Your task to perform on an android device: Clear the cart on newegg. Add "logitech g pro" to the cart on newegg, then select checkout. Image 0: 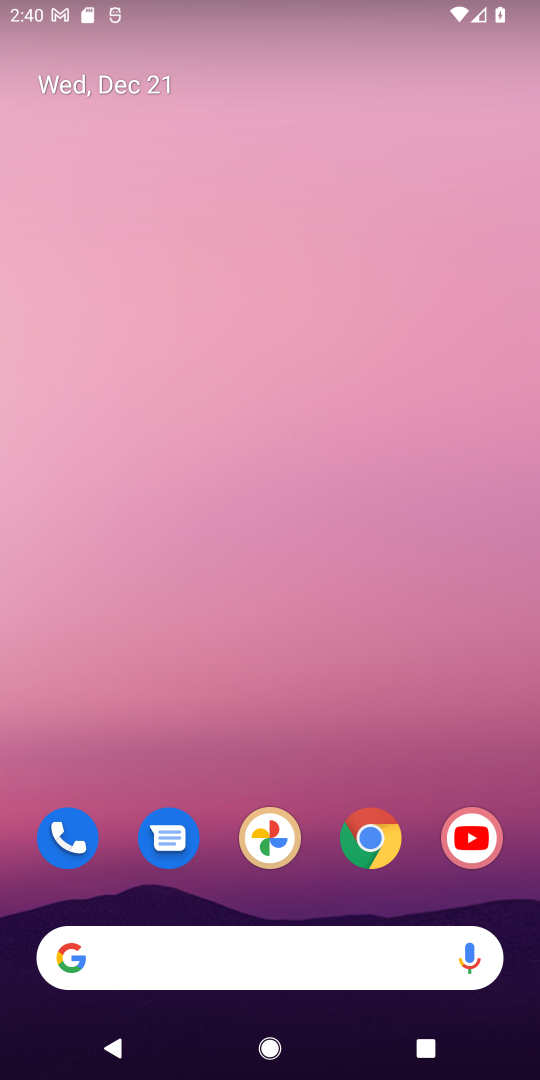
Step 0: click (361, 835)
Your task to perform on an android device: Clear the cart on newegg. Add "logitech g pro" to the cart on newegg, then select checkout. Image 1: 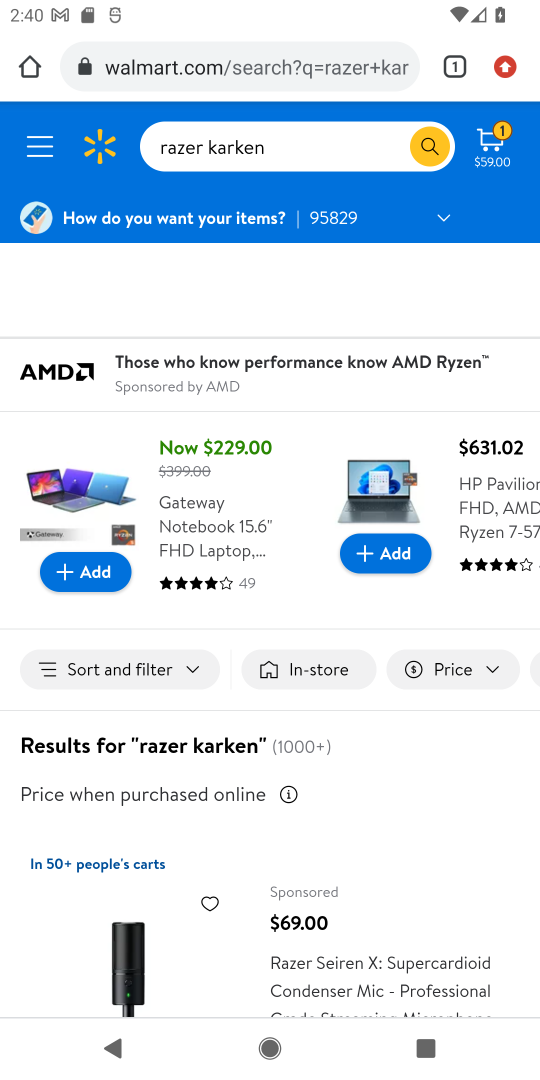
Step 1: click (307, 83)
Your task to perform on an android device: Clear the cart on newegg. Add "logitech g pro" to the cart on newegg, then select checkout. Image 2: 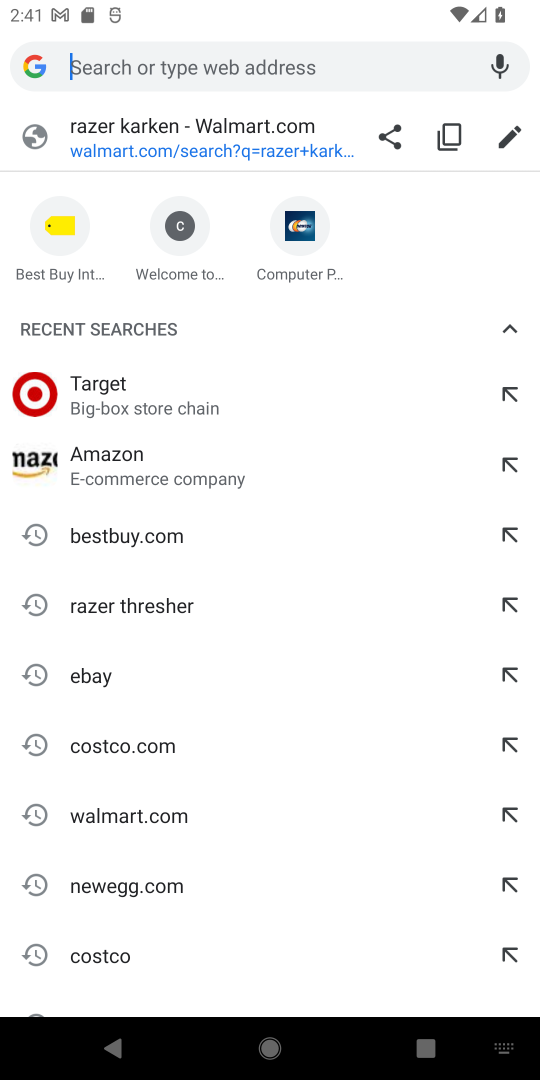
Step 2: type "newegg"
Your task to perform on an android device: Clear the cart on newegg. Add "logitech g pro" to the cart on newegg, then select checkout. Image 3: 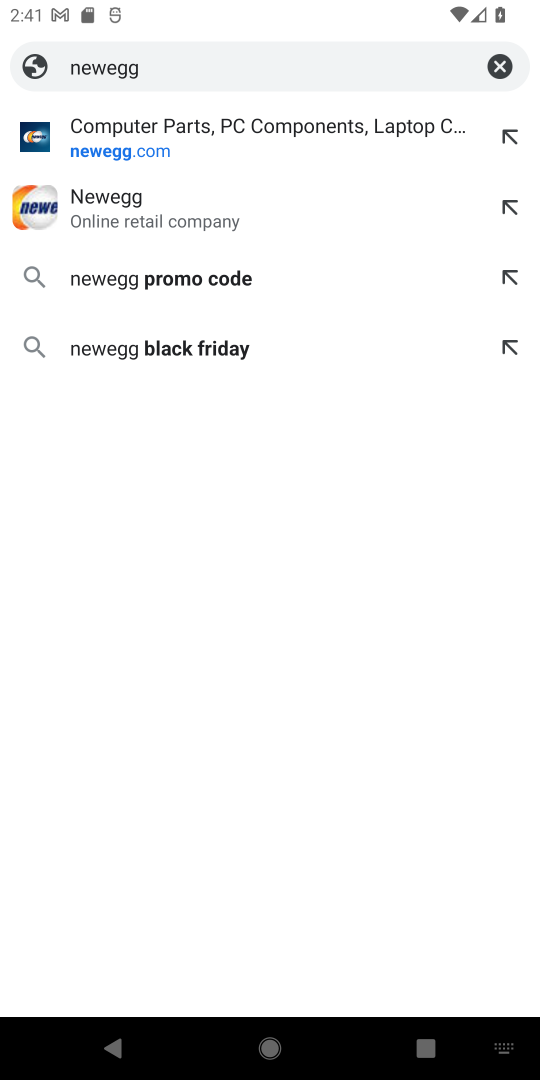
Step 3: click (269, 154)
Your task to perform on an android device: Clear the cart on newegg. Add "logitech g pro" to the cart on newegg, then select checkout. Image 4: 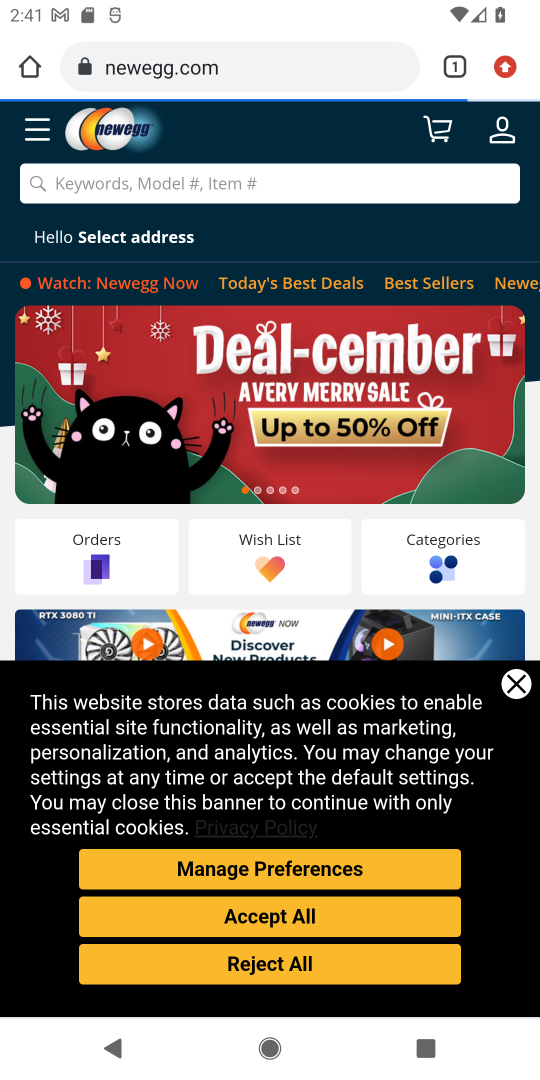
Step 4: click (262, 180)
Your task to perform on an android device: Clear the cart on newegg. Add "logitech g pro" to the cart on newegg, then select checkout. Image 5: 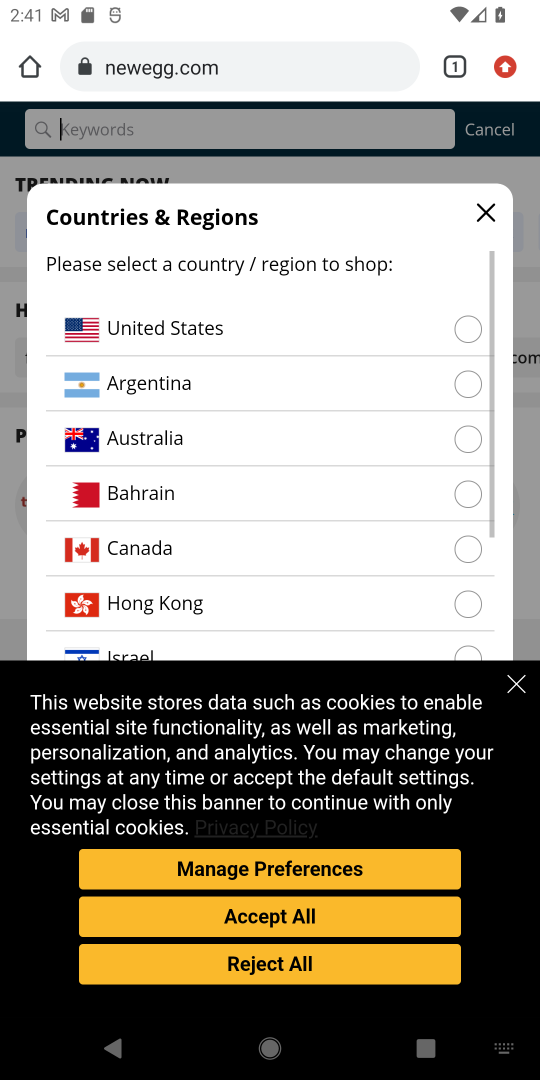
Step 5: click (147, 317)
Your task to perform on an android device: Clear the cart on newegg. Add "logitech g pro" to the cart on newegg, then select checkout. Image 6: 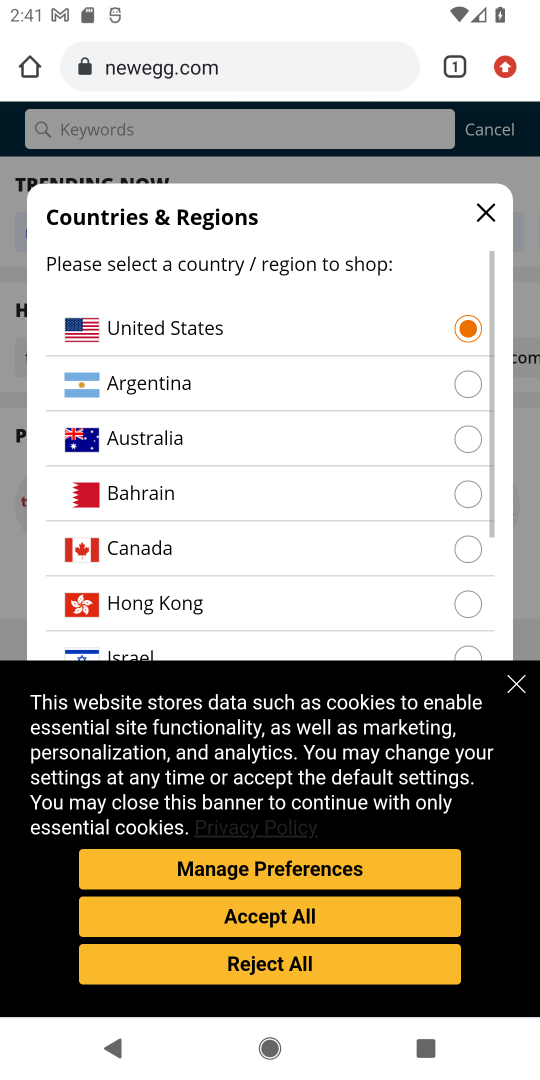
Step 6: click (302, 911)
Your task to perform on an android device: Clear the cart on newegg. Add "logitech g pro" to the cart on newegg, then select checkout. Image 7: 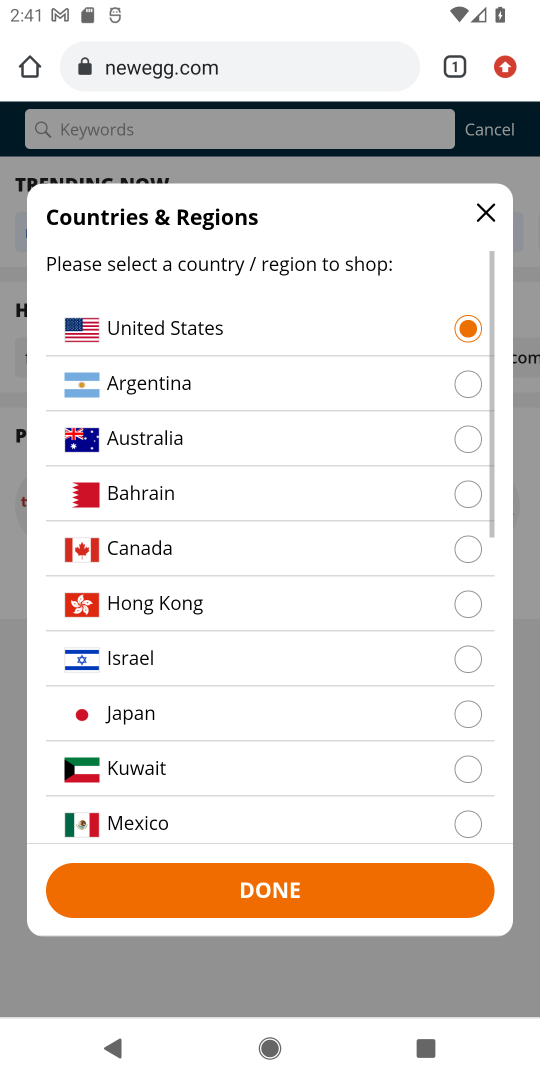
Step 7: click (313, 899)
Your task to perform on an android device: Clear the cart on newegg. Add "logitech g pro" to the cart on newegg, then select checkout. Image 8: 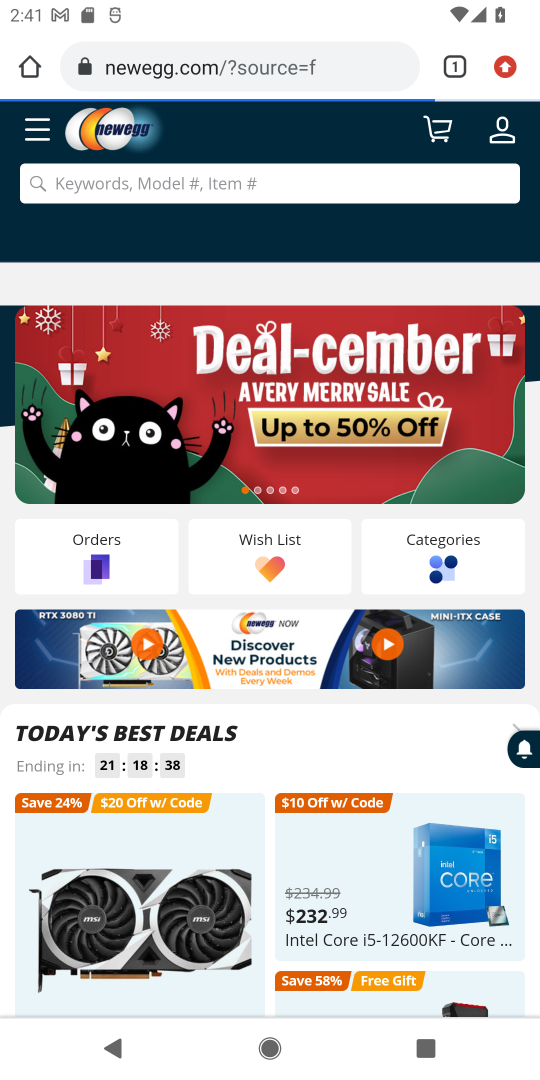
Step 8: click (279, 123)
Your task to perform on an android device: Clear the cart on newegg. Add "logitech g pro" to the cart on newegg, then select checkout. Image 9: 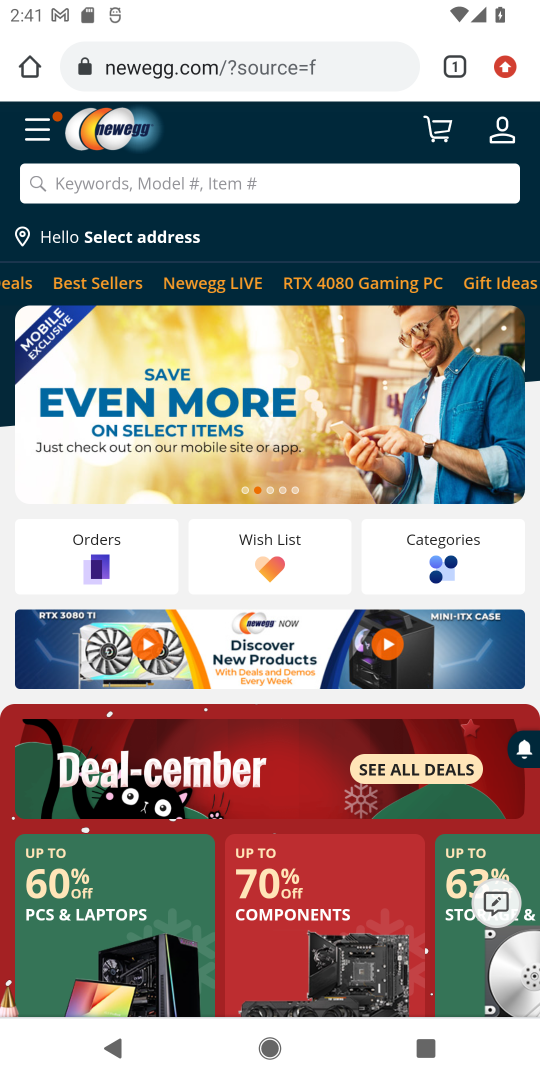
Step 9: type "logitech g pro"
Your task to perform on an android device: Clear the cart on newegg. Add "logitech g pro" to the cart on newegg, then select checkout. Image 10: 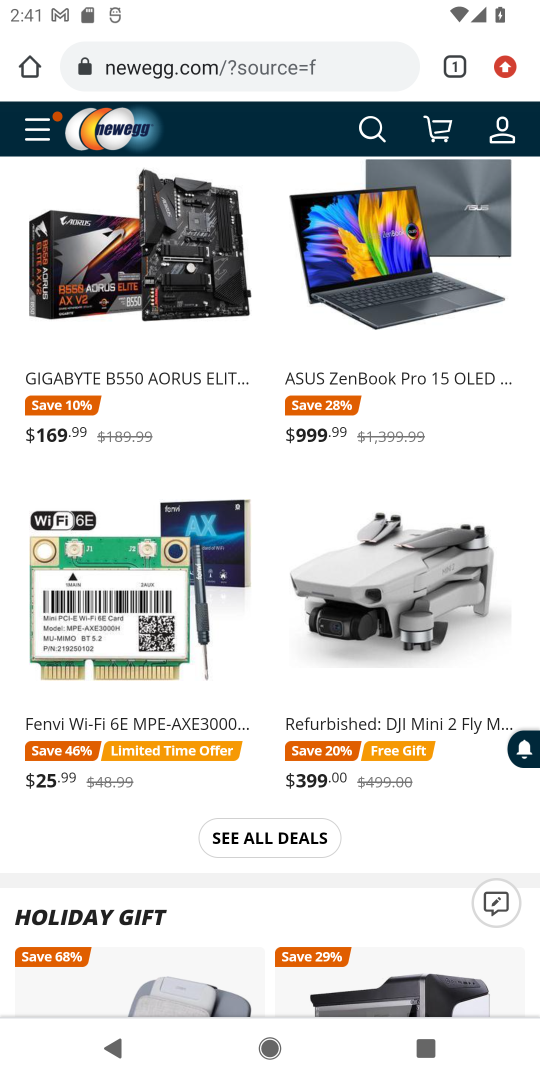
Step 10: click (360, 147)
Your task to perform on an android device: Clear the cart on newegg. Add "logitech g pro" to the cart on newegg, then select checkout. Image 11: 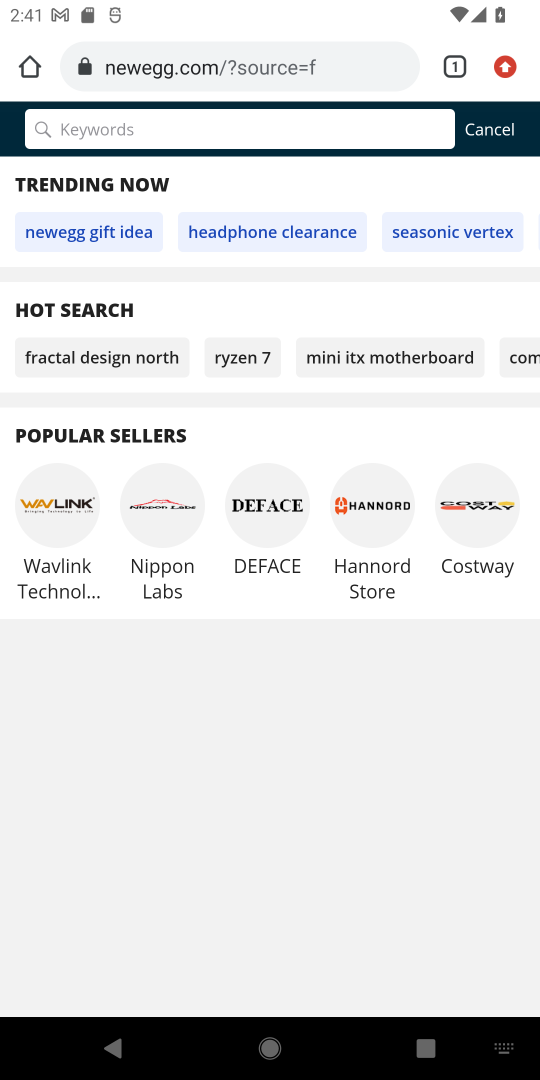
Step 11: type "logitech g pro"
Your task to perform on an android device: Clear the cart on newegg. Add "logitech g pro" to the cart on newegg, then select checkout. Image 12: 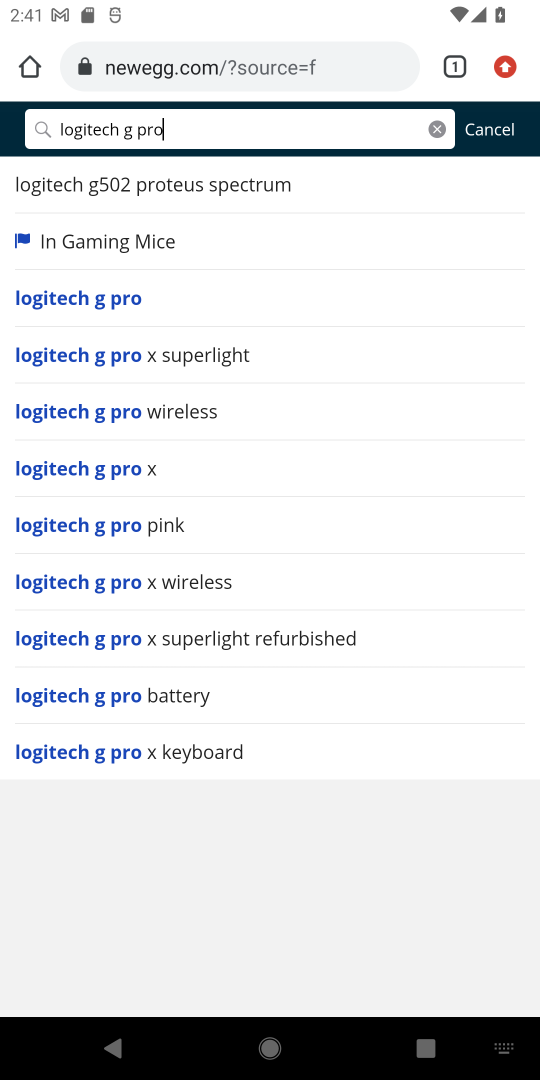
Step 12: click (129, 295)
Your task to perform on an android device: Clear the cart on newegg. Add "logitech g pro" to the cart on newegg, then select checkout. Image 13: 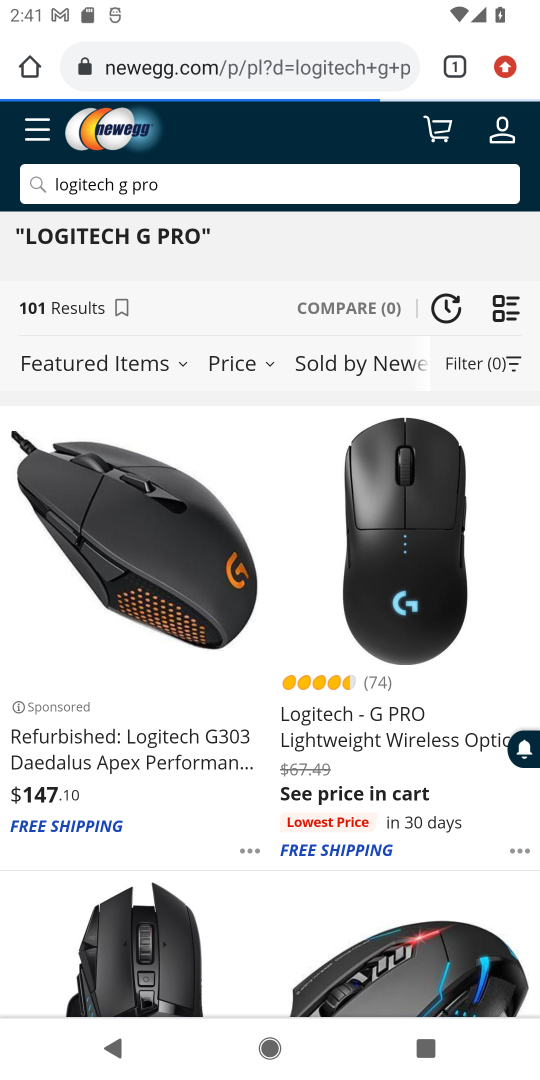
Step 13: click (133, 547)
Your task to perform on an android device: Clear the cart on newegg. Add "logitech g pro" to the cart on newegg, then select checkout. Image 14: 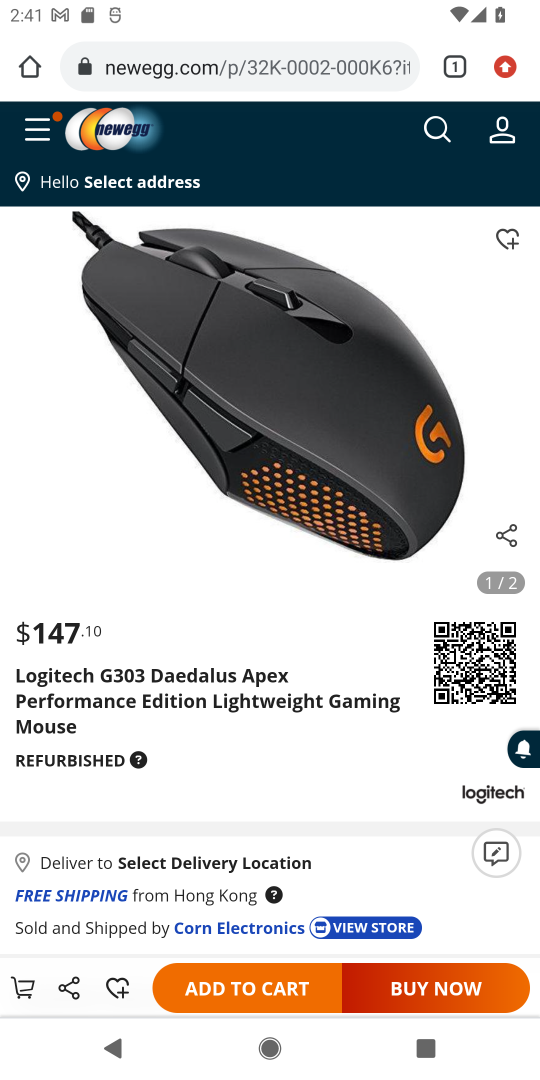
Step 14: click (200, 980)
Your task to perform on an android device: Clear the cart on newegg. Add "logitech g pro" to the cart on newegg, then select checkout. Image 15: 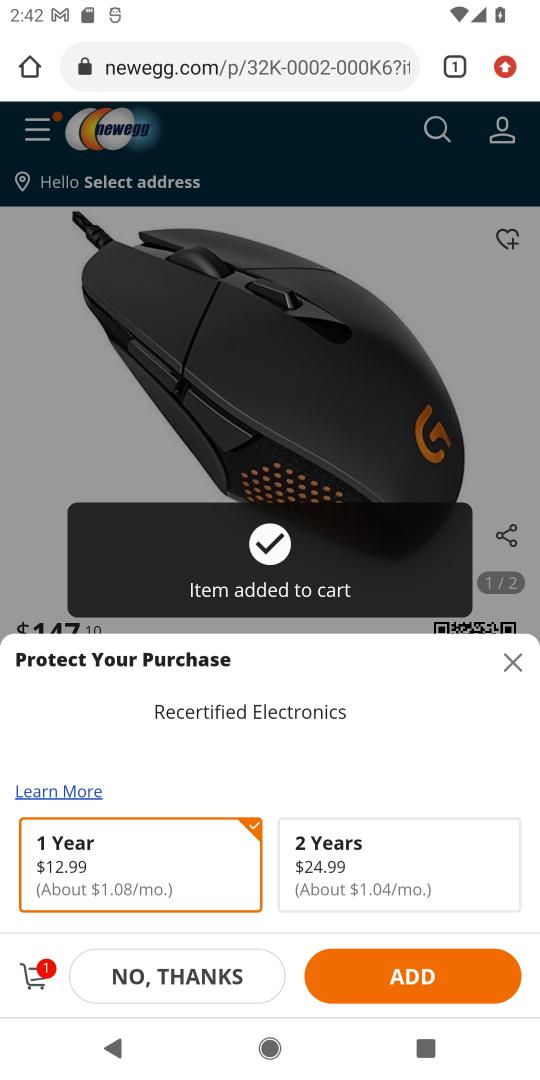
Step 15: task complete